Your task to perform on an android device: set default search engine in the chrome app Image 0: 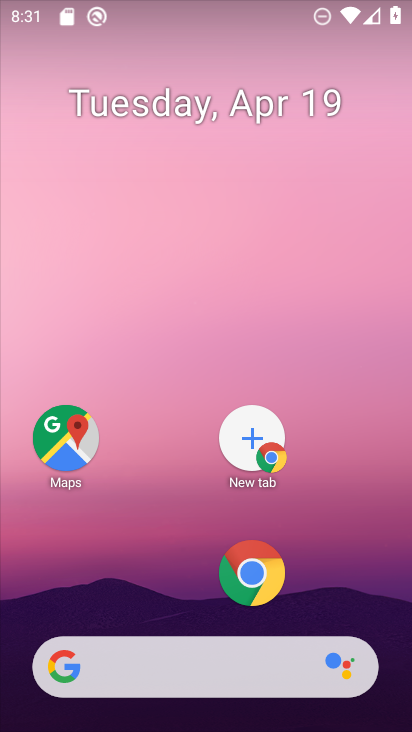
Step 0: click (266, 574)
Your task to perform on an android device: set default search engine in the chrome app Image 1: 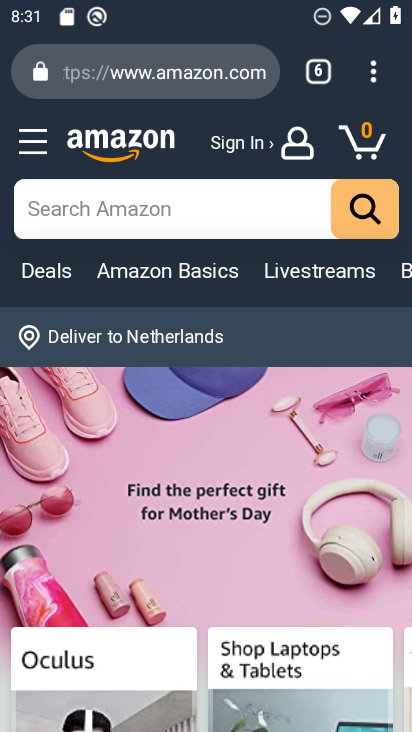
Step 1: click (390, 65)
Your task to perform on an android device: set default search engine in the chrome app Image 2: 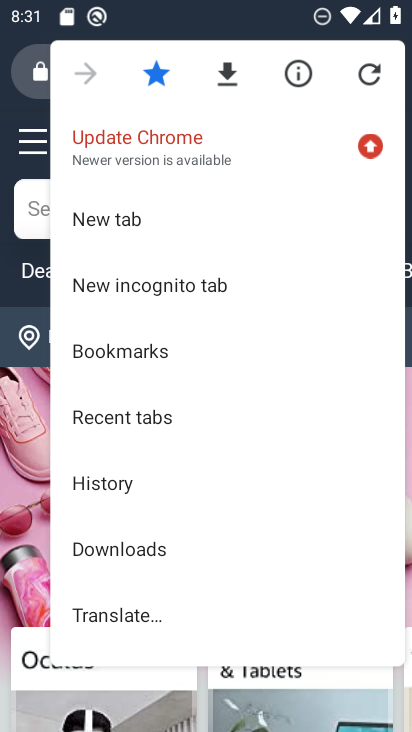
Step 2: drag from (120, 569) to (199, 82)
Your task to perform on an android device: set default search engine in the chrome app Image 3: 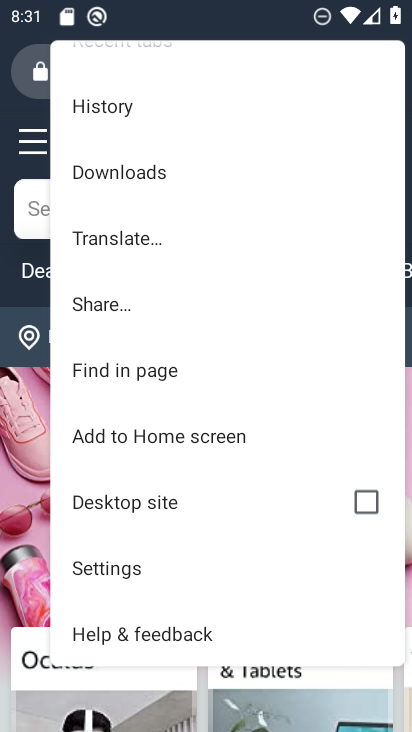
Step 3: click (164, 565)
Your task to perform on an android device: set default search engine in the chrome app Image 4: 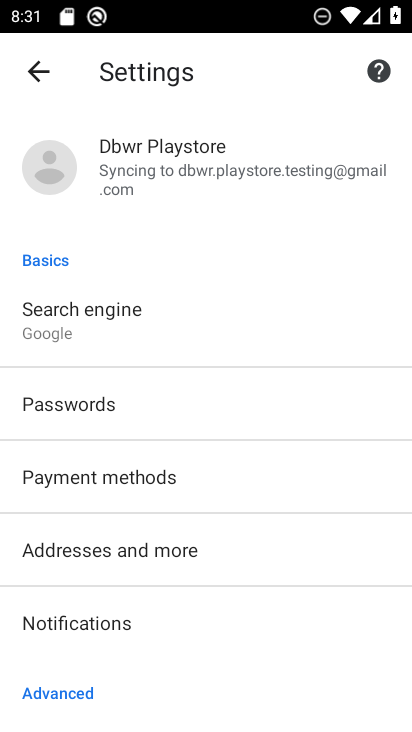
Step 4: click (212, 318)
Your task to perform on an android device: set default search engine in the chrome app Image 5: 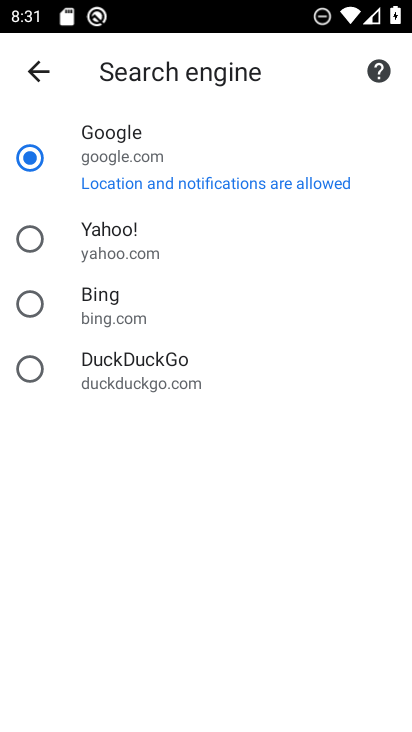
Step 5: click (212, 318)
Your task to perform on an android device: set default search engine in the chrome app Image 6: 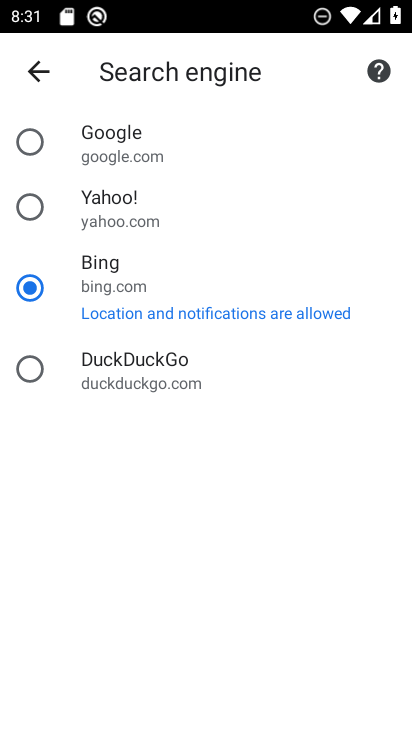
Step 6: task complete